Your task to perform on an android device: Open Maps and search for coffee Image 0: 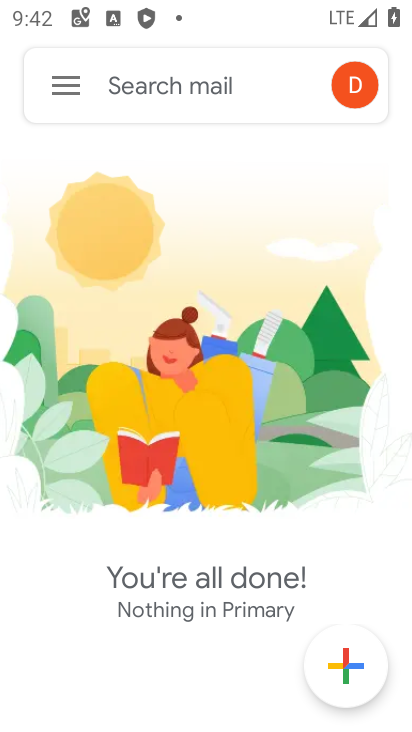
Step 0: press home button
Your task to perform on an android device: Open Maps and search for coffee Image 1: 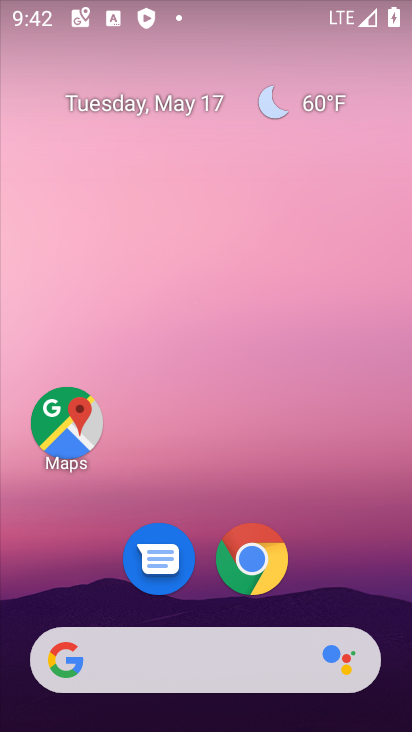
Step 1: click (93, 442)
Your task to perform on an android device: Open Maps and search for coffee Image 2: 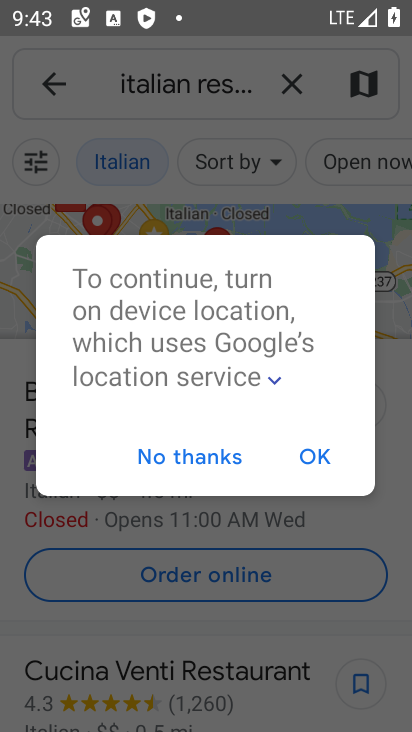
Step 2: click (316, 458)
Your task to perform on an android device: Open Maps and search for coffee Image 3: 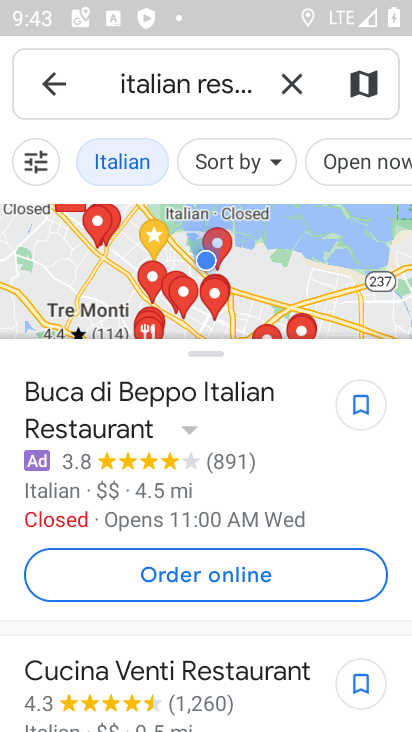
Step 3: click (285, 89)
Your task to perform on an android device: Open Maps and search for coffee Image 4: 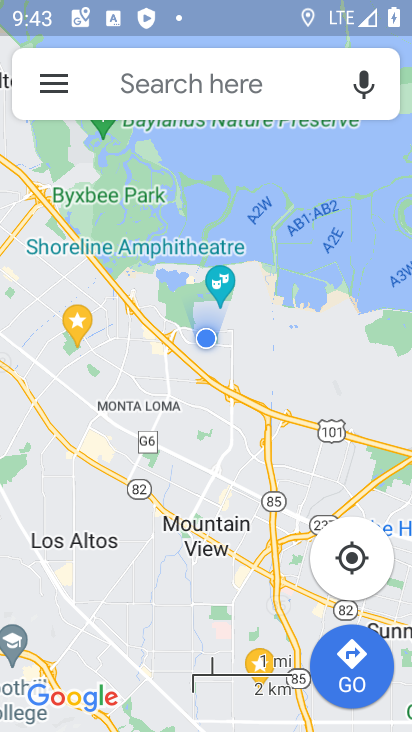
Step 4: click (203, 78)
Your task to perform on an android device: Open Maps and search for coffee Image 5: 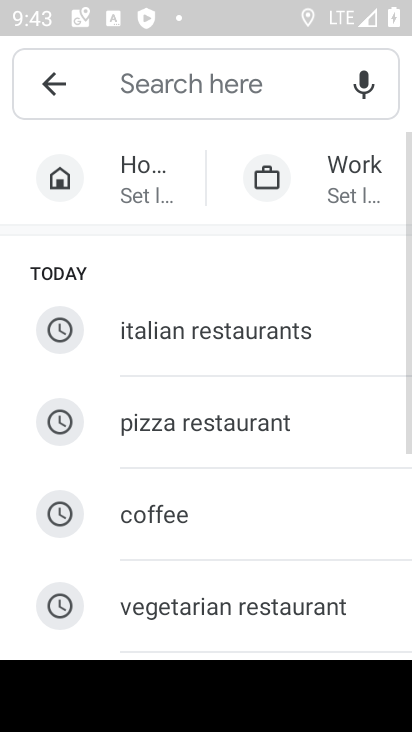
Step 5: click (171, 531)
Your task to perform on an android device: Open Maps and search for coffee Image 6: 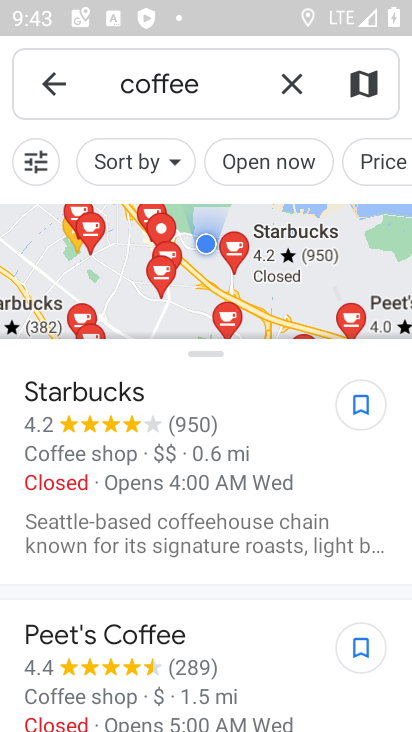
Step 6: task complete